Your task to perform on an android device: Search for flights from Barcelona to Boston Image 0: 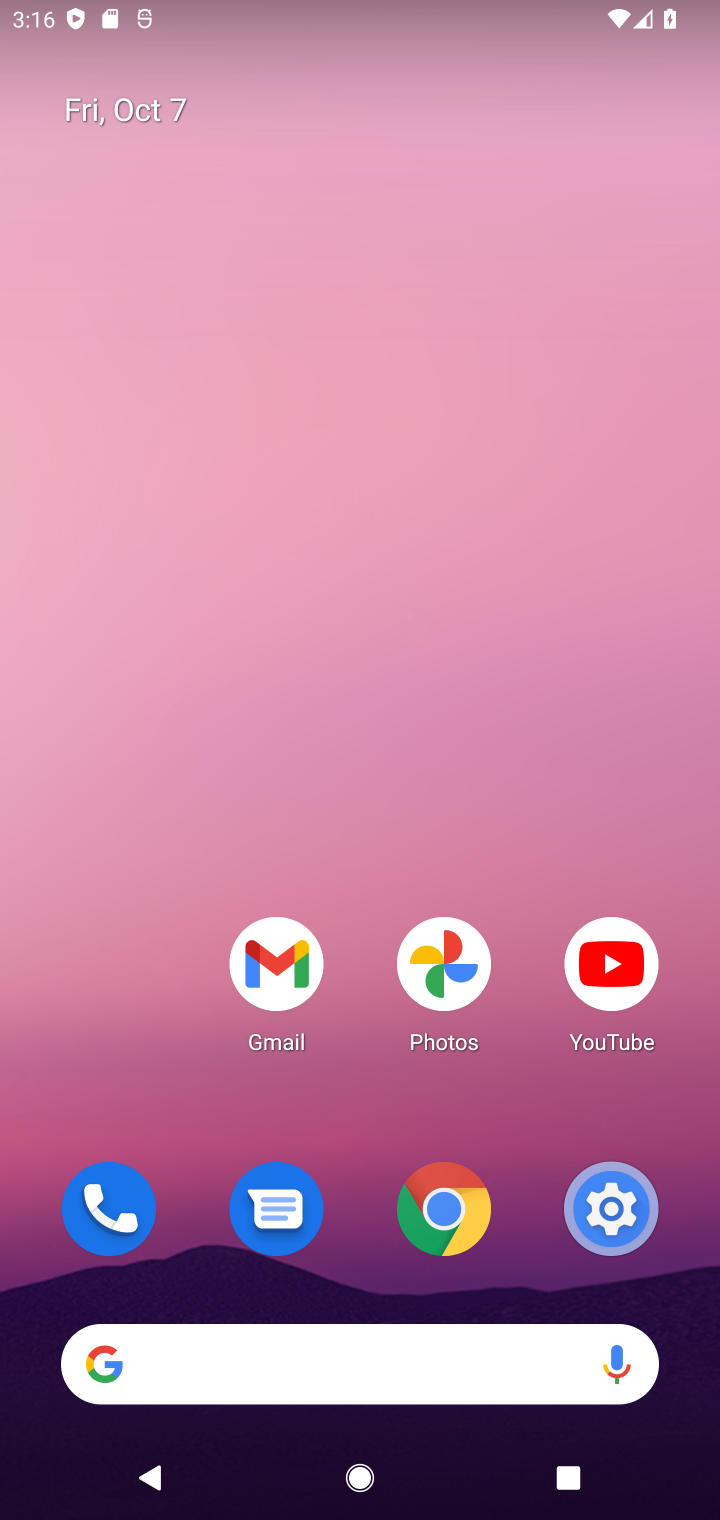
Step 0: press home button
Your task to perform on an android device: Search for flights from Barcelona to Boston Image 1: 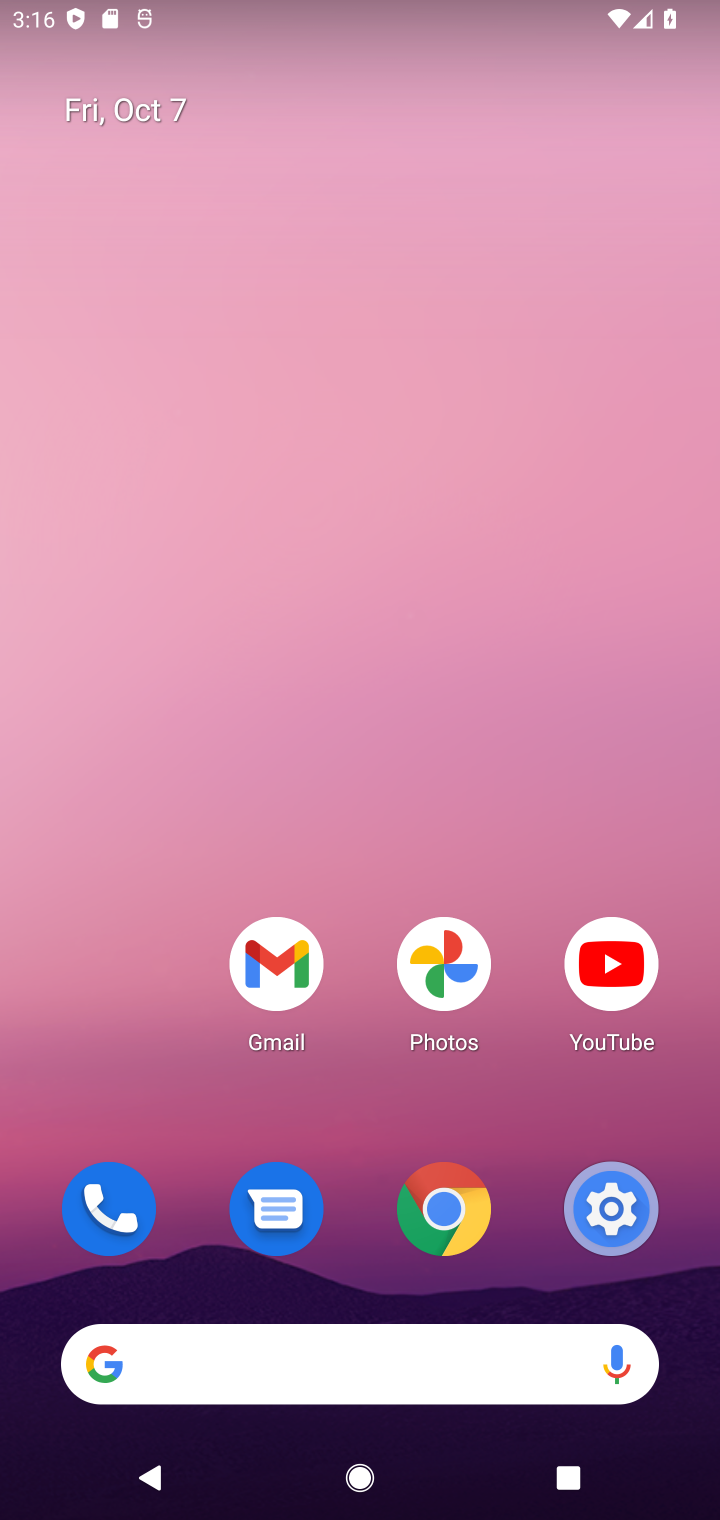
Step 1: click (349, 1379)
Your task to perform on an android device: Search for flights from Barcelona to Boston Image 2: 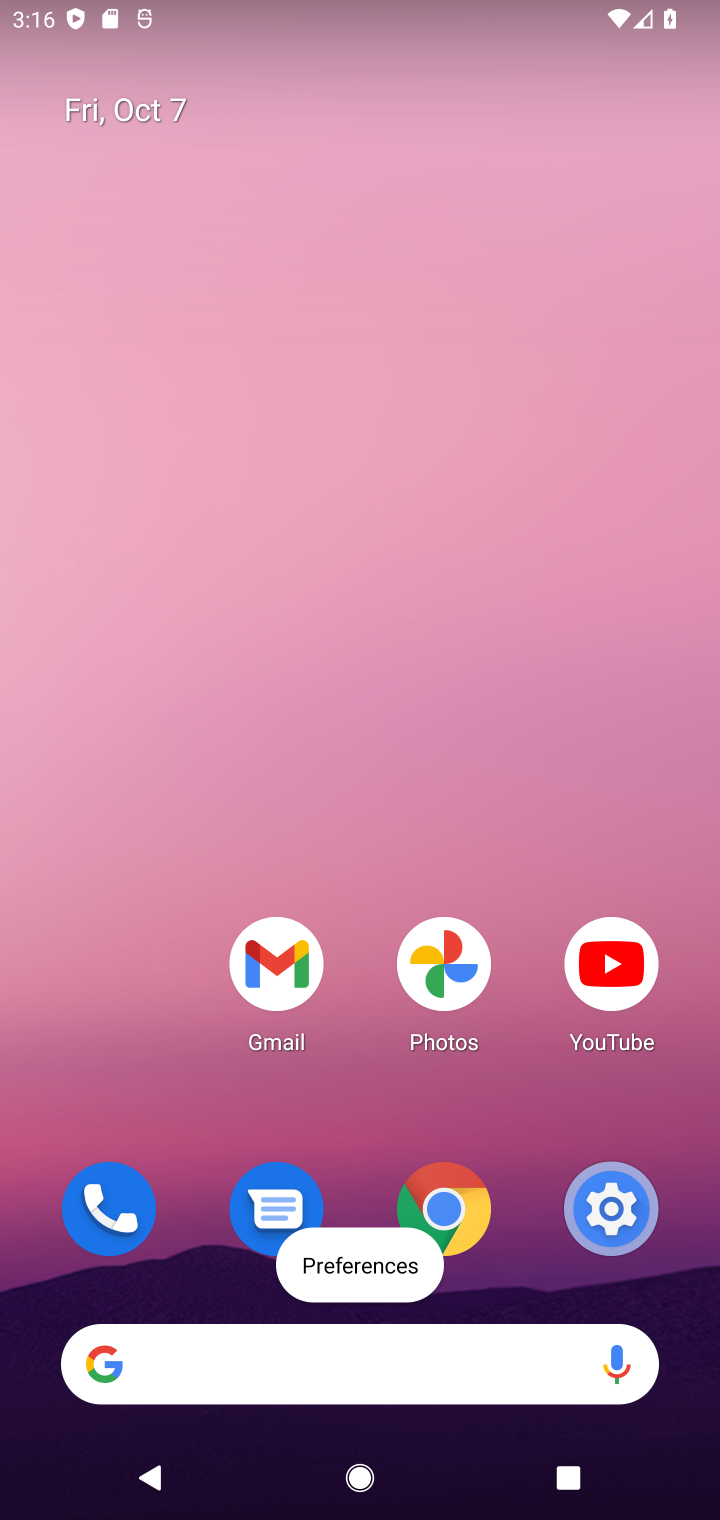
Step 2: click (266, 1367)
Your task to perform on an android device: Search for flights from Barcelona to Boston Image 3: 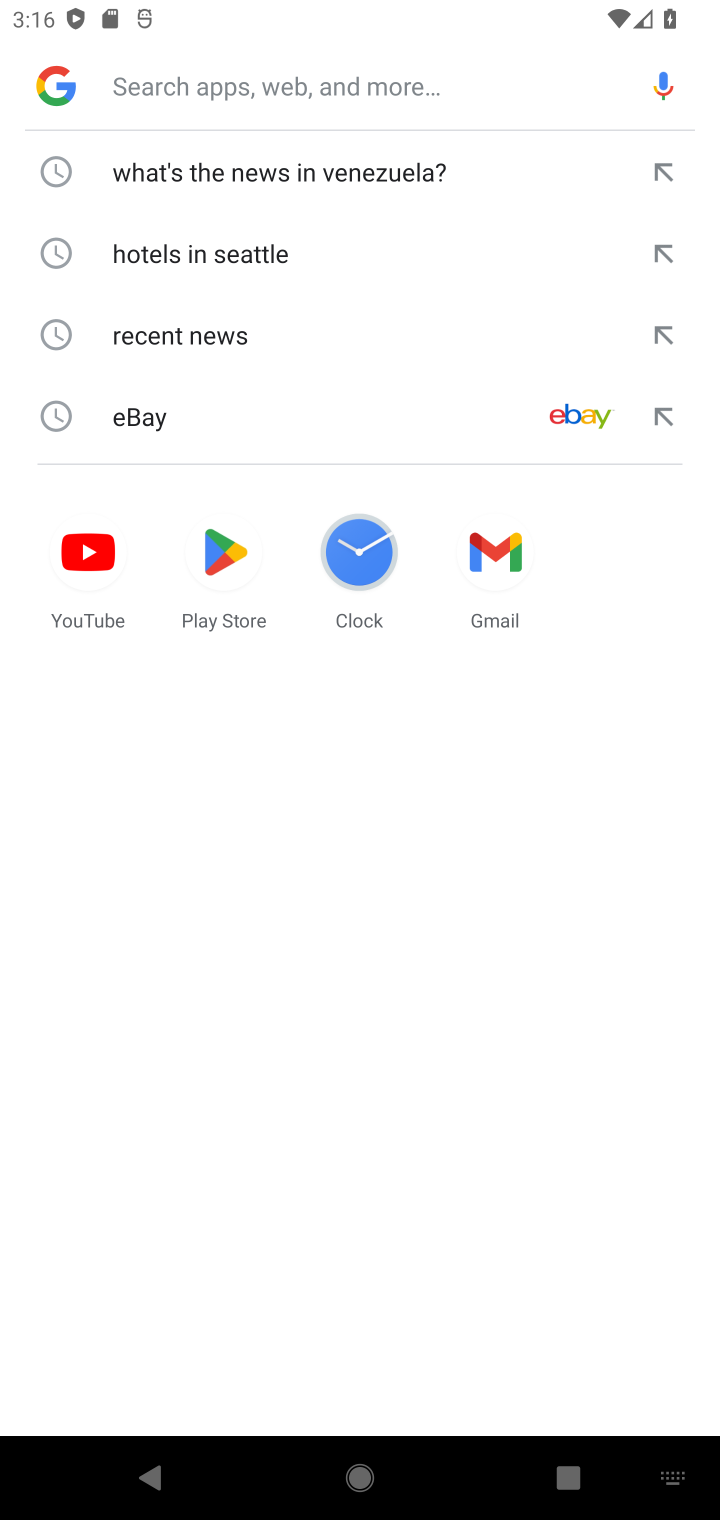
Step 3: type "flights from Barcelona to Boston"
Your task to perform on an android device: Search for flights from Barcelona to Boston Image 4: 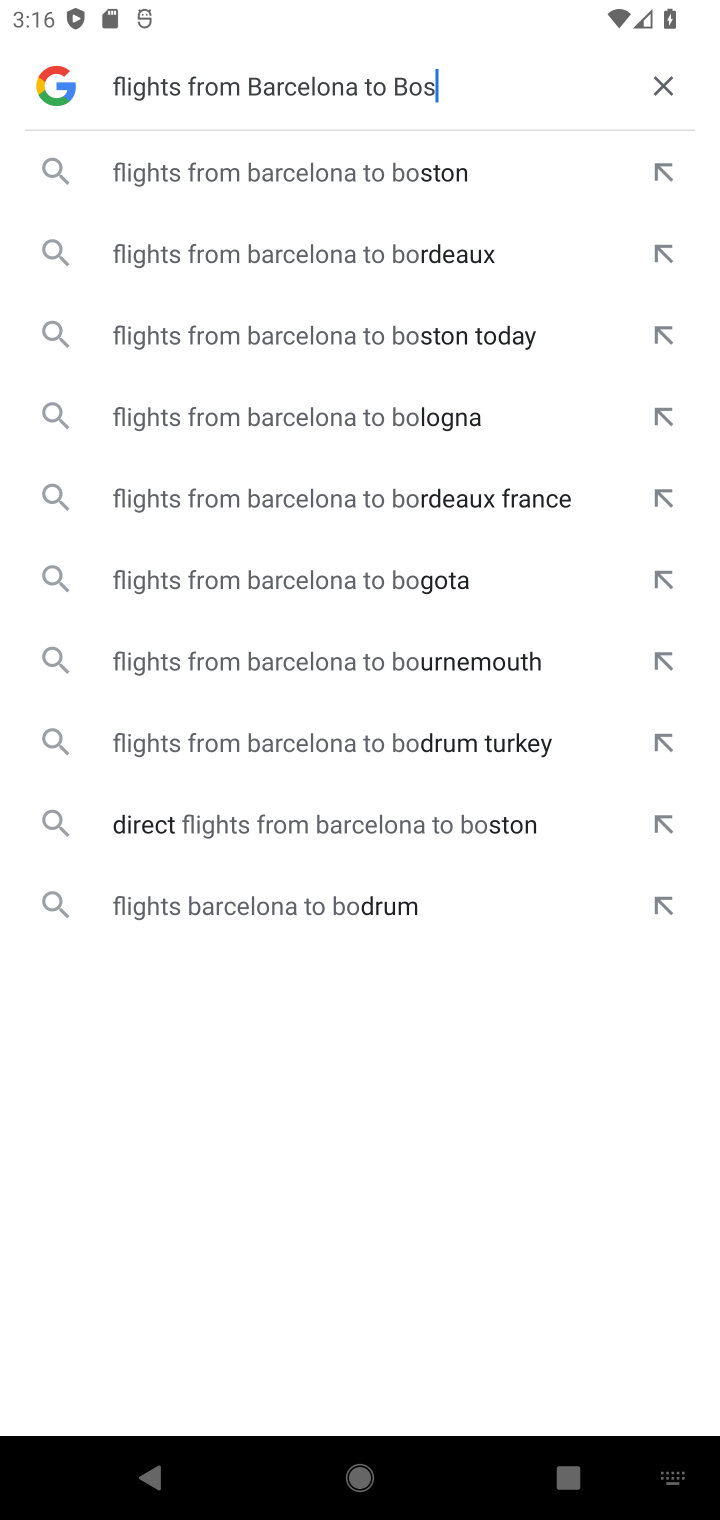
Step 4: press enter
Your task to perform on an android device: Search for flights from Barcelona to Boston Image 5: 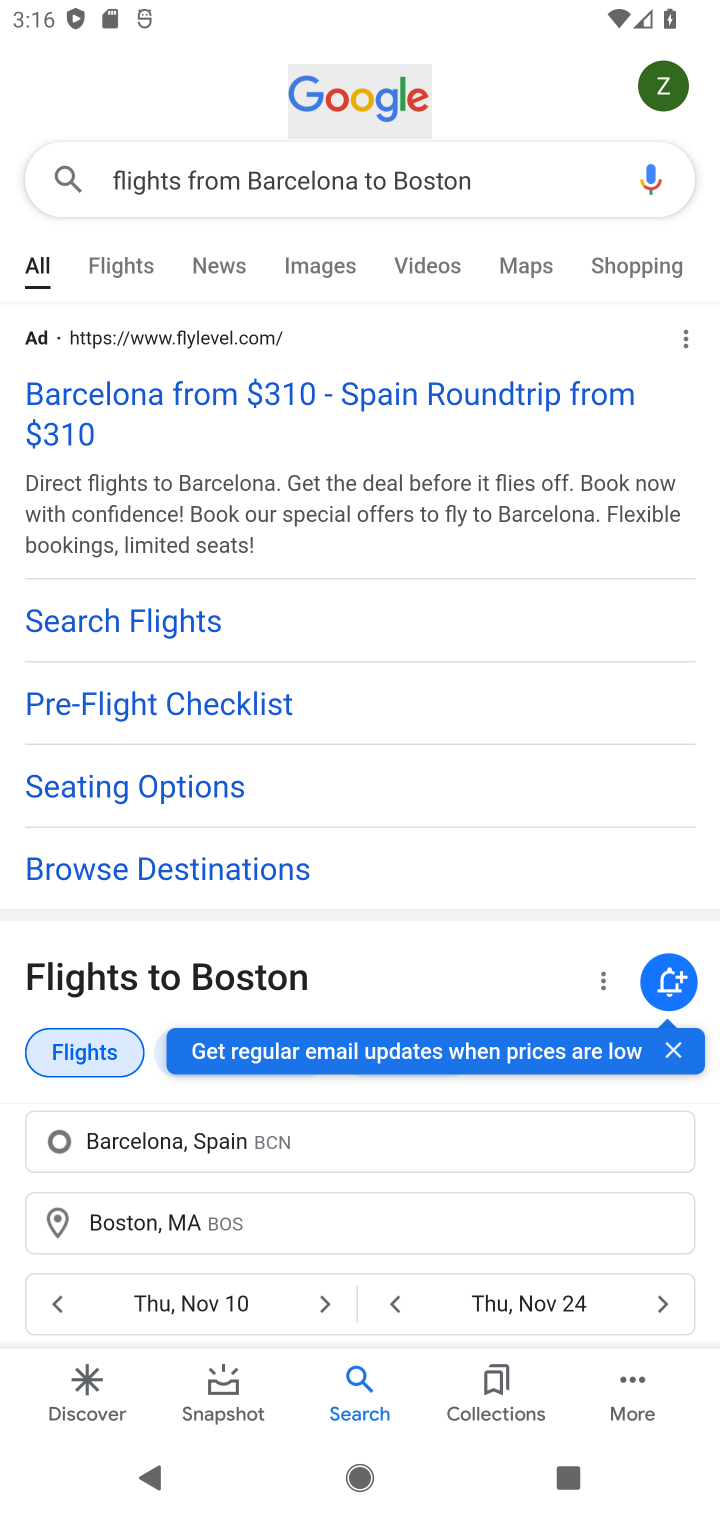
Step 5: drag from (488, 873) to (516, 354)
Your task to perform on an android device: Search for flights from Barcelona to Boston Image 6: 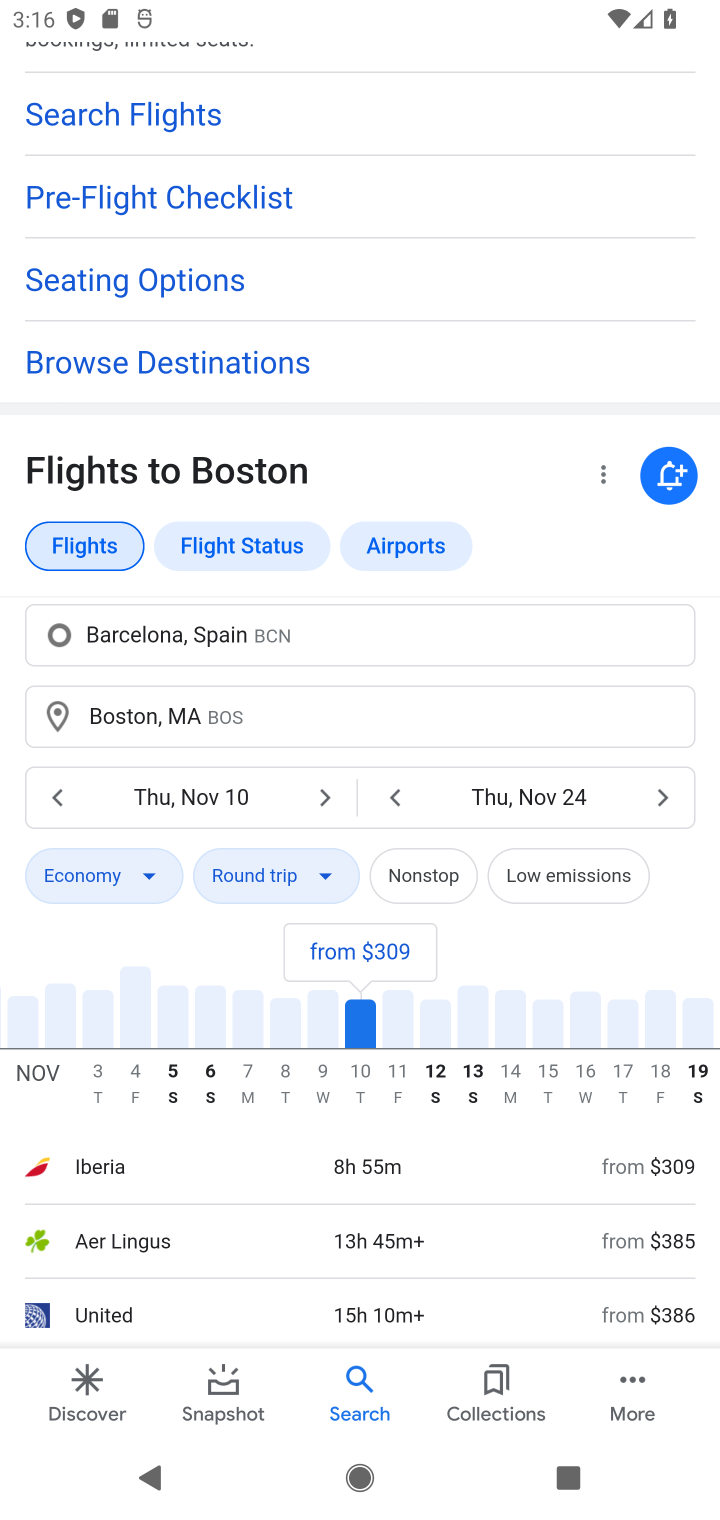
Step 6: drag from (480, 1010) to (500, 483)
Your task to perform on an android device: Search for flights from Barcelona to Boston Image 7: 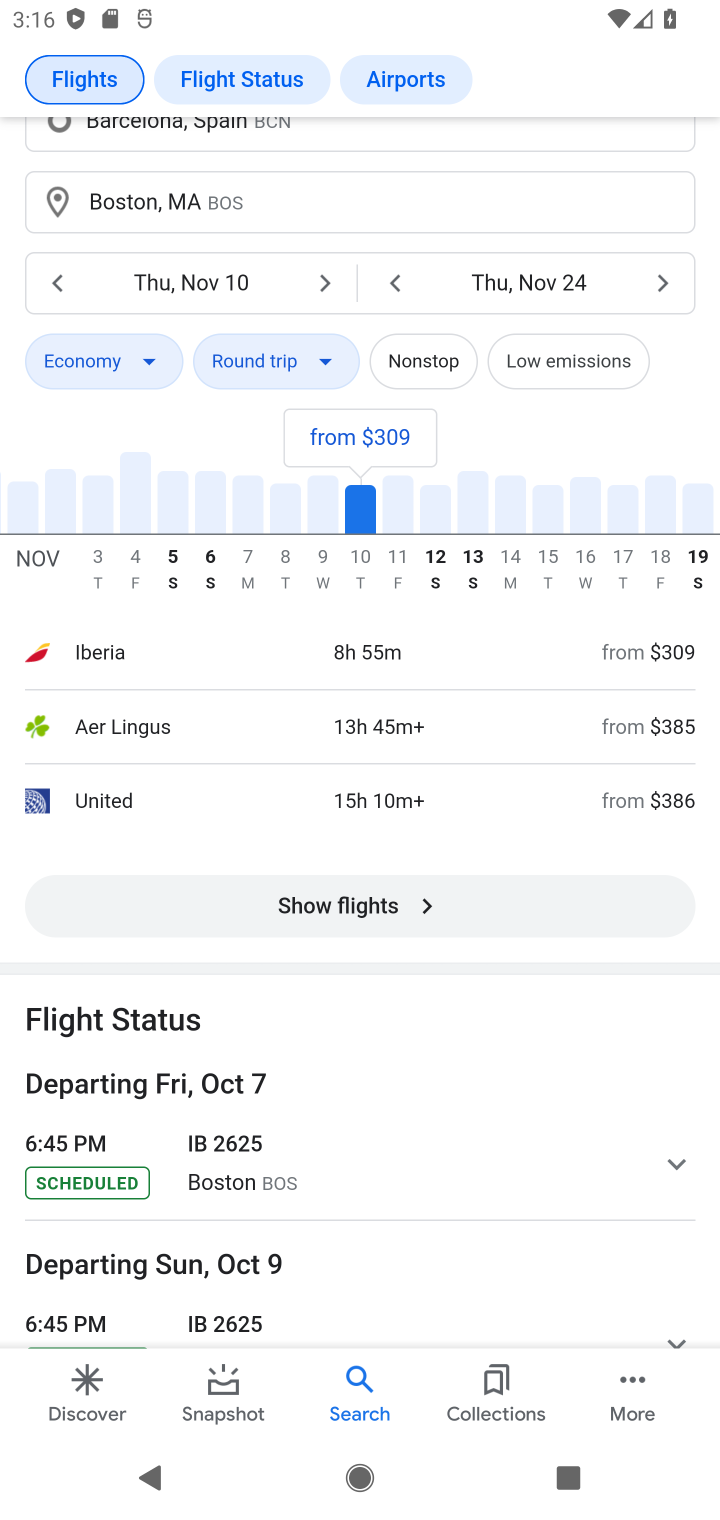
Step 7: click (346, 895)
Your task to perform on an android device: Search for flights from Barcelona to Boston Image 8: 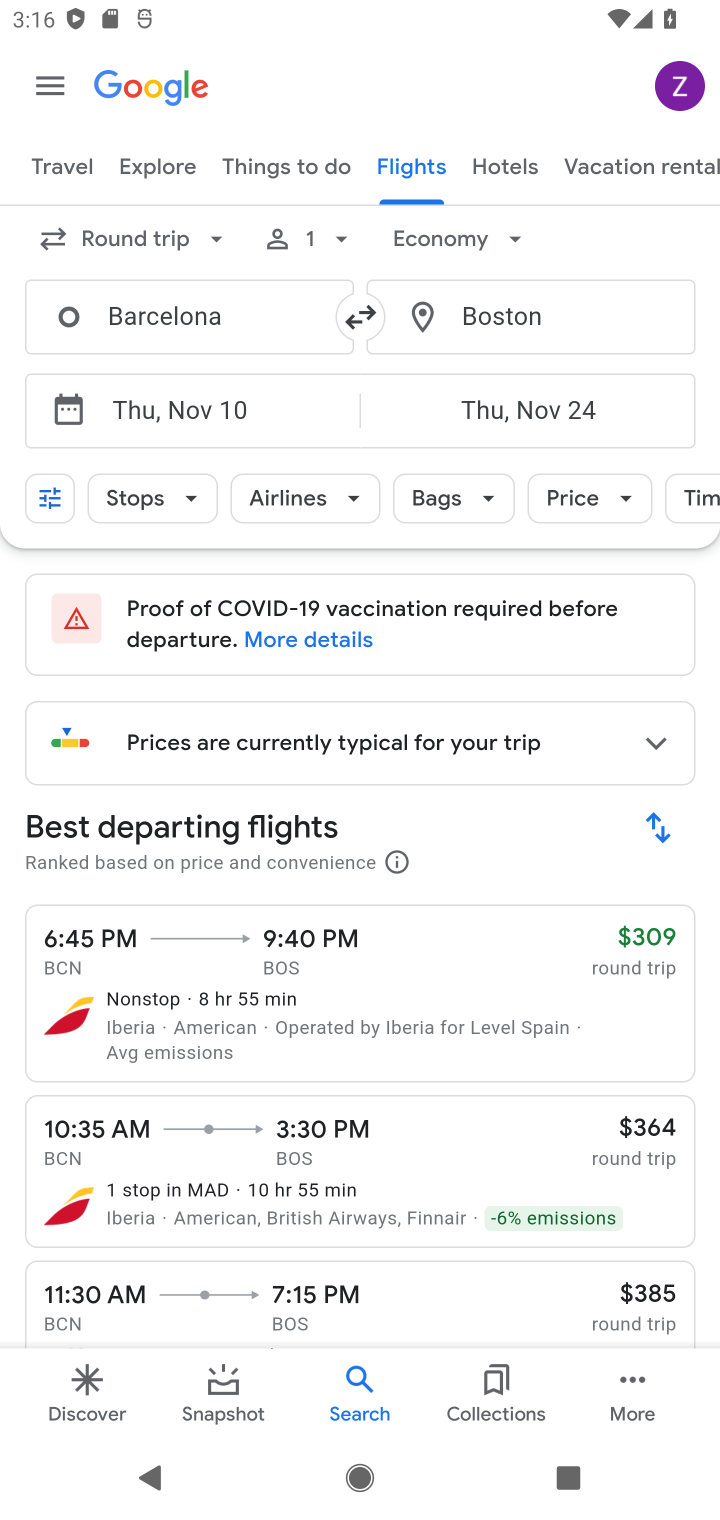
Step 8: task complete